Your task to perform on an android device: Open calendar and show me the second week of next month Image 0: 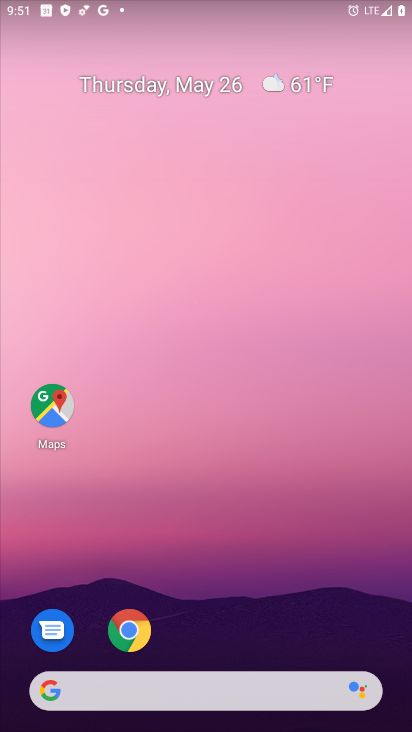
Step 0: drag from (219, 655) to (184, 146)
Your task to perform on an android device: Open calendar and show me the second week of next month Image 1: 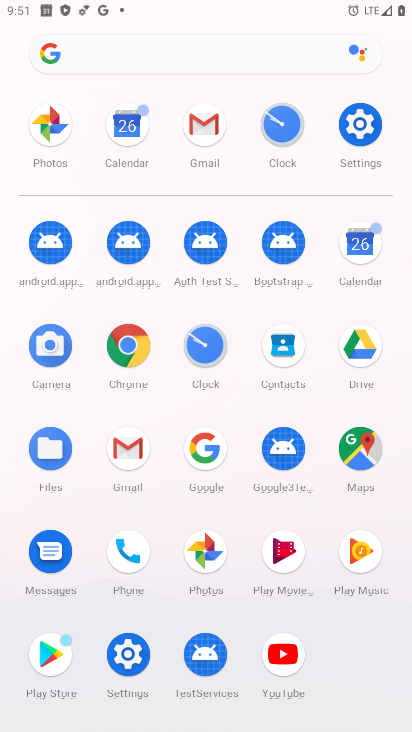
Step 1: click (365, 238)
Your task to perform on an android device: Open calendar and show me the second week of next month Image 2: 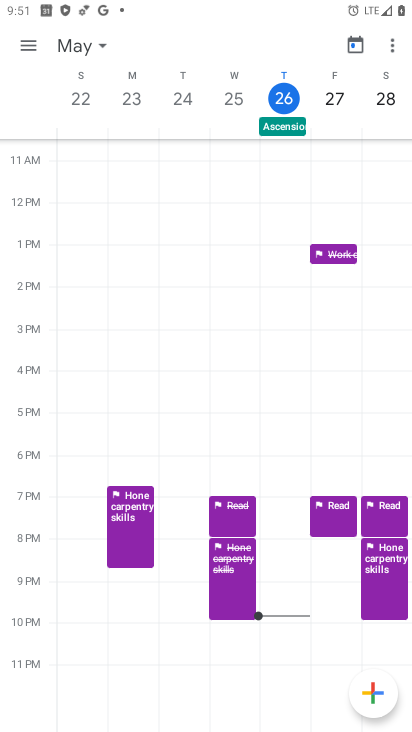
Step 2: task complete